Your task to perform on an android device: Go to eBay Image 0: 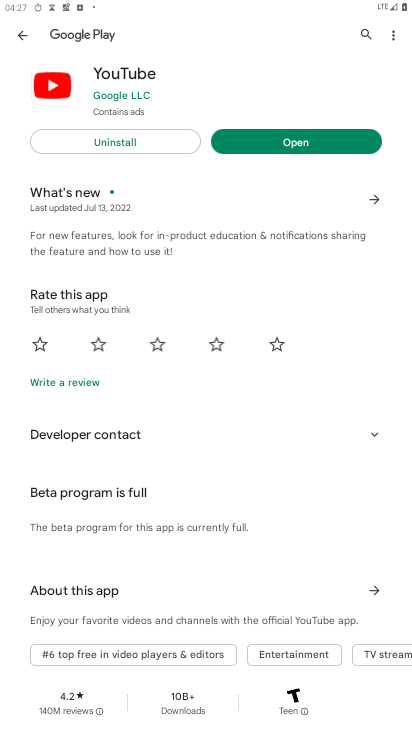
Step 0: press home button
Your task to perform on an android device: Go to eBay Image 1: 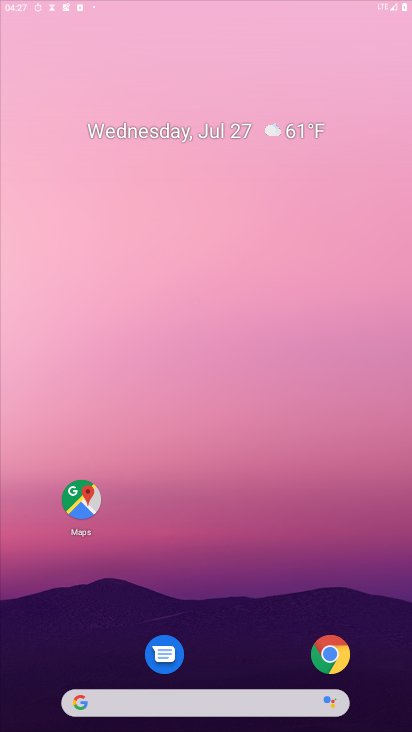
Step 1: drag from (201, 705) to (181, 33)
Your task to perform on an android device: Go to eBay Image 2: 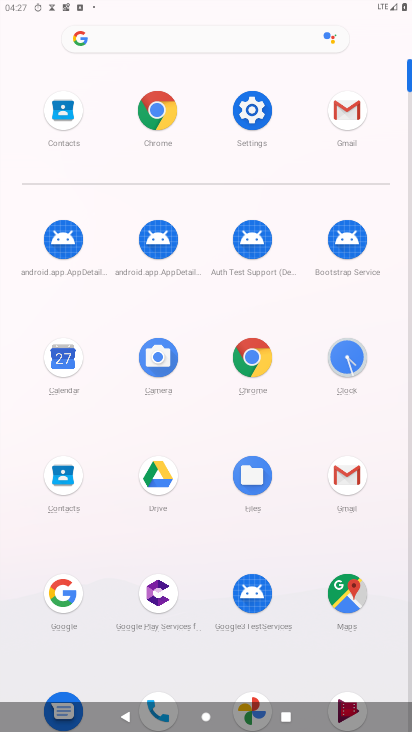
Step 2: click (251, 351)
Your task to perform on an android device: Go to eBay Image 3: 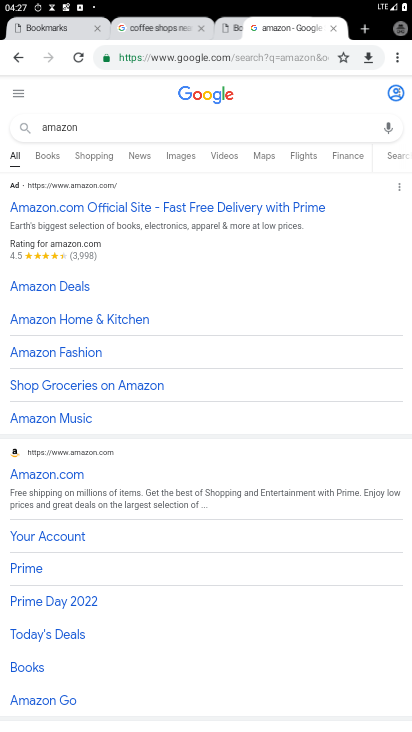
Step 3: click (240, 55)
Your task to perform on an android device: Go to eBay Image 4: 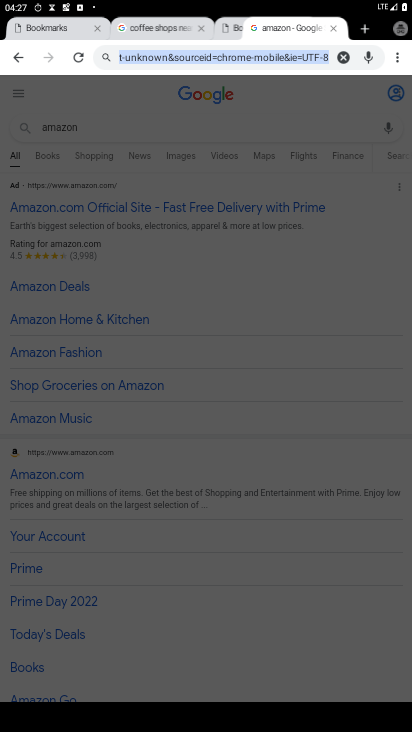
Step 4: type "ebay"
Your task to perform on an android device: Go to eBay Image 5: 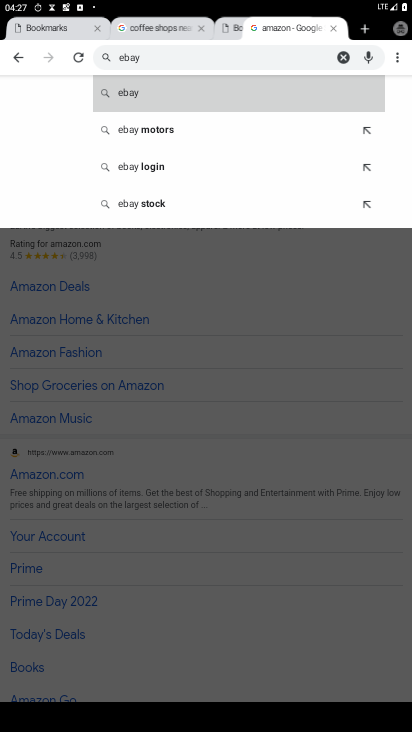
Step 5: click (165, 93)
Your task to perform on an android device: Go to eBay Image 6: 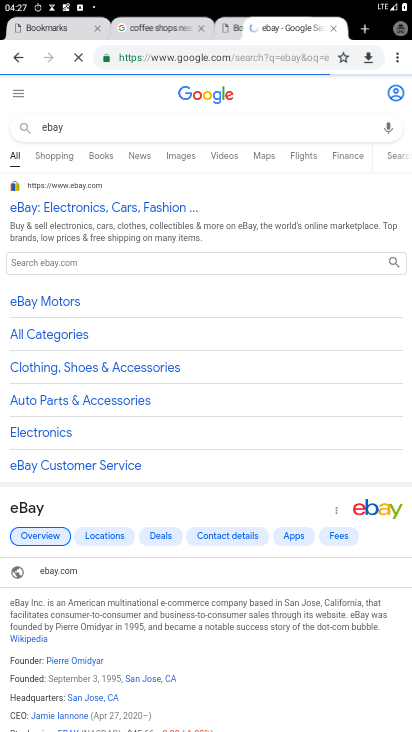
Step 6: task complete